Your task to perform on an android device: check data usage Image 0: 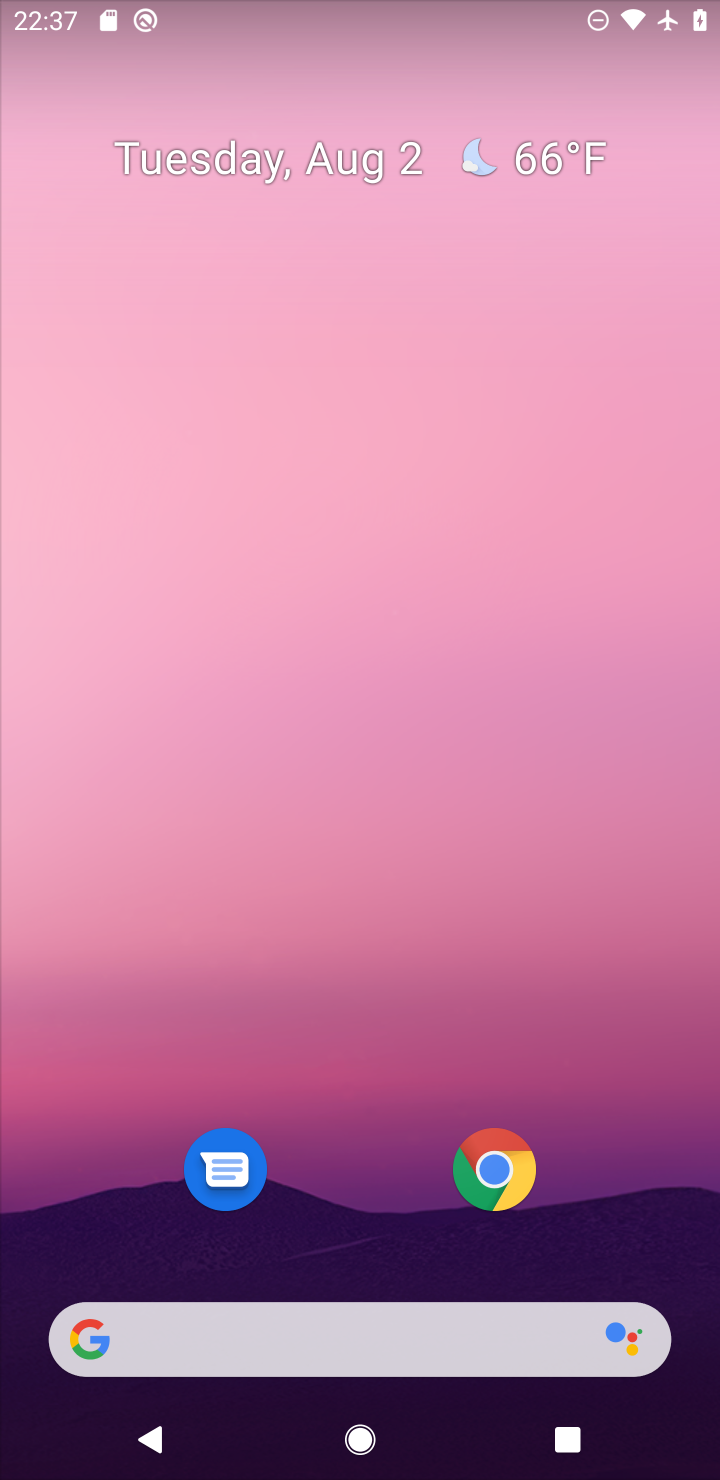
Step 0: drag from (378, 1191) to (317, 158)
Your task to perform on an android device: check data usage Image 1: 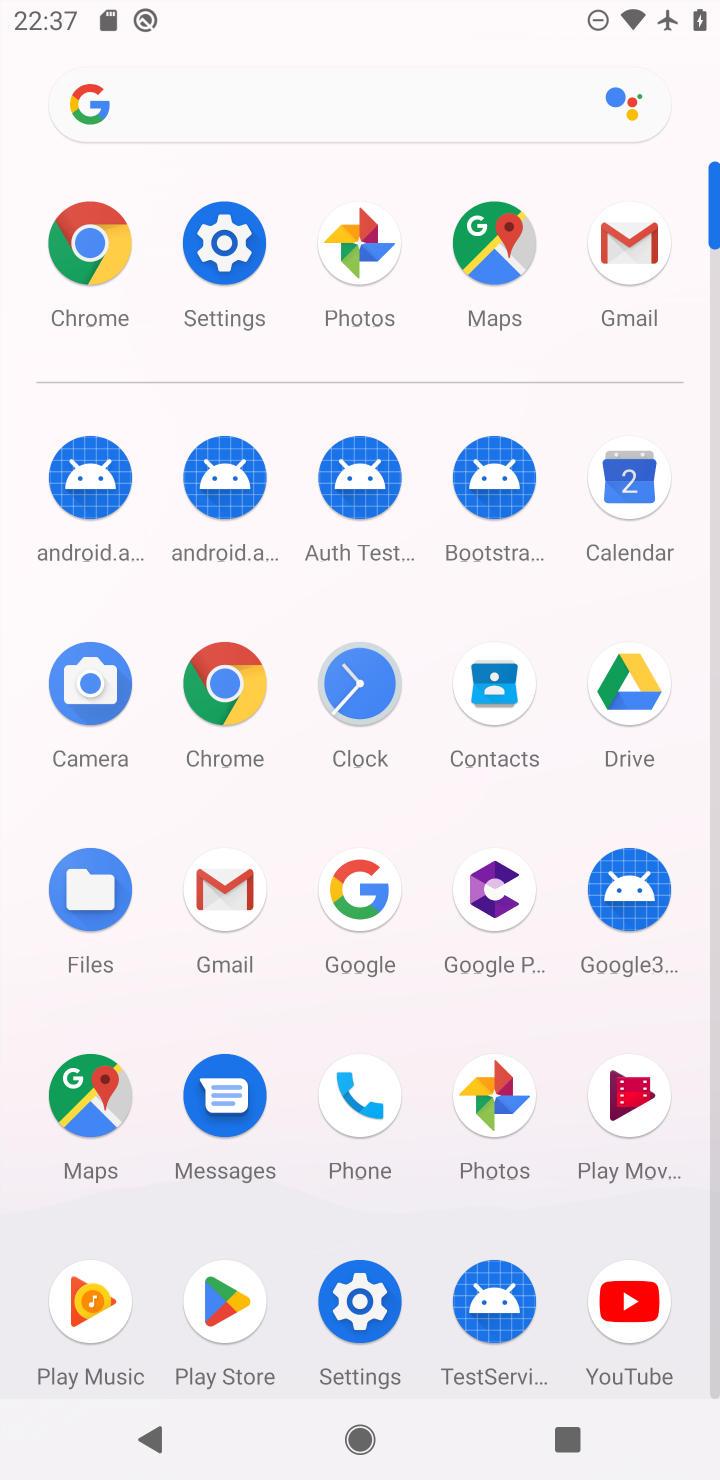
Step 1: click (218, 238)
Your task to perform on an android device: check data usage Image 2: 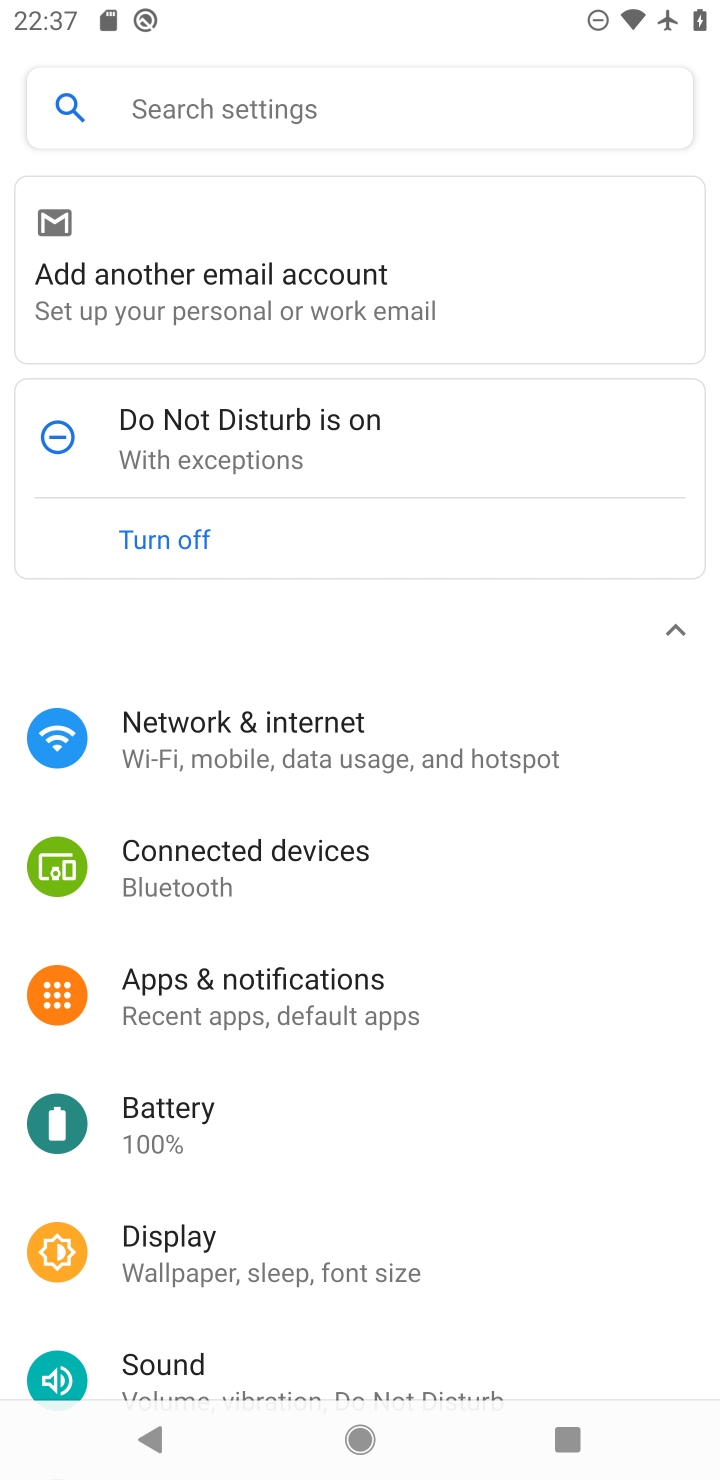
Step 2: click (223, 744)
Your task to perform on an android device: check data usage Image 3: 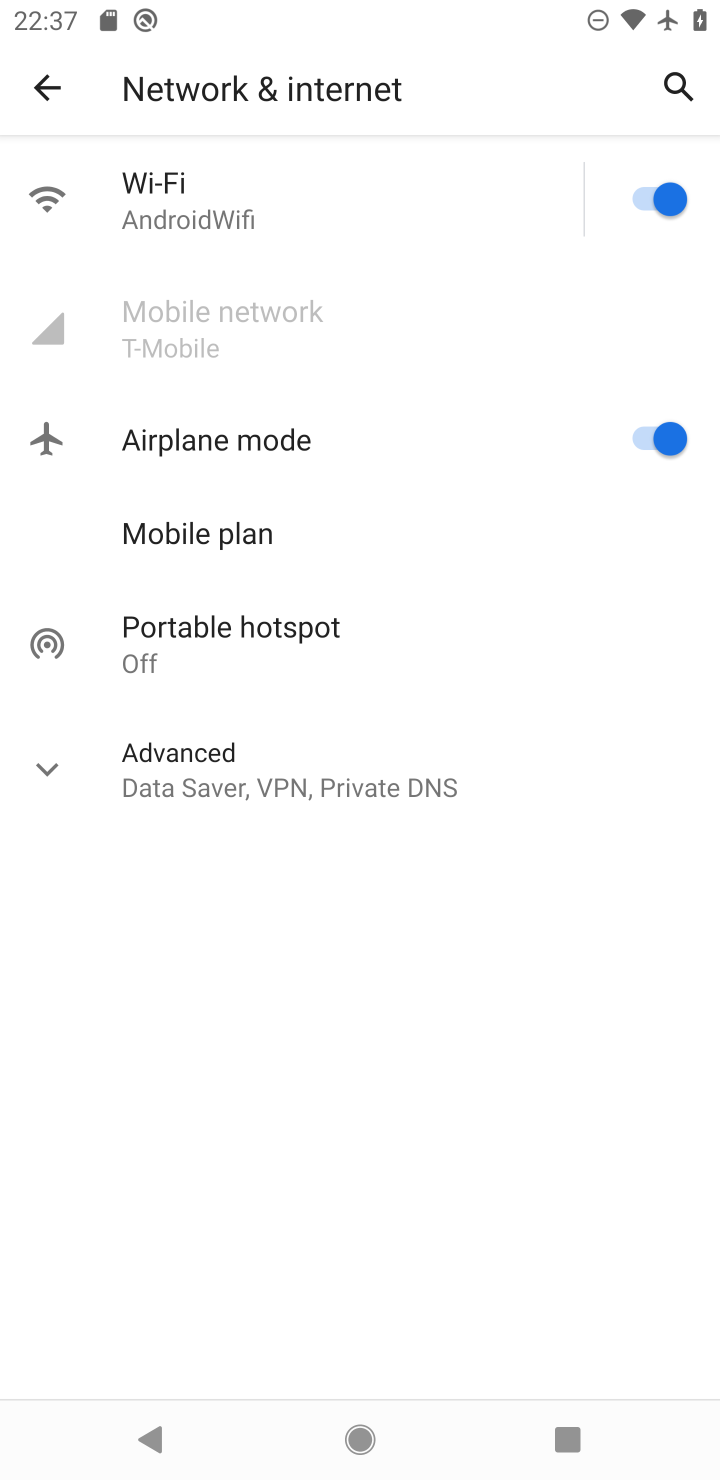
Step 3: click (649, 423)
Your task to perform on an android device: check data usage Image 4: 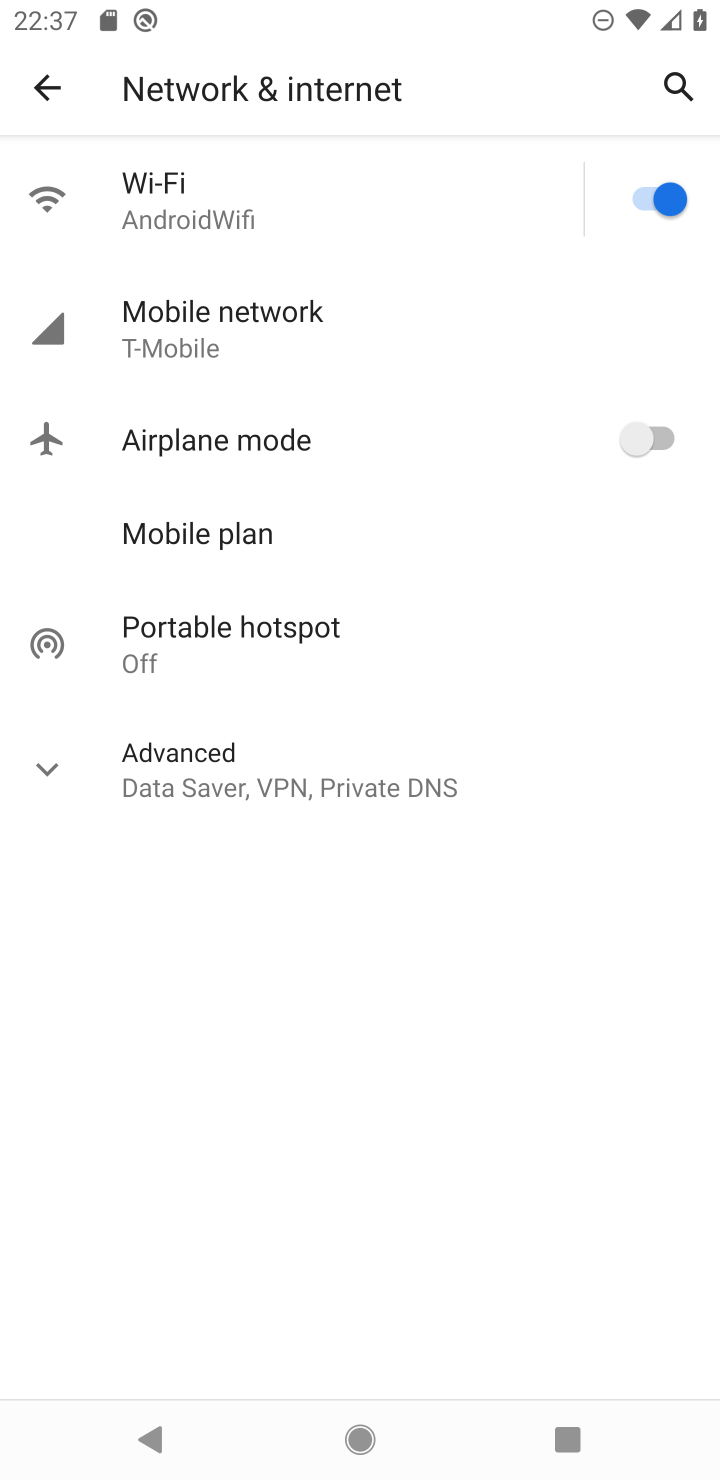
Step 4: click (192, 315)
Your task to perform on an android device: check data usage Image 5: 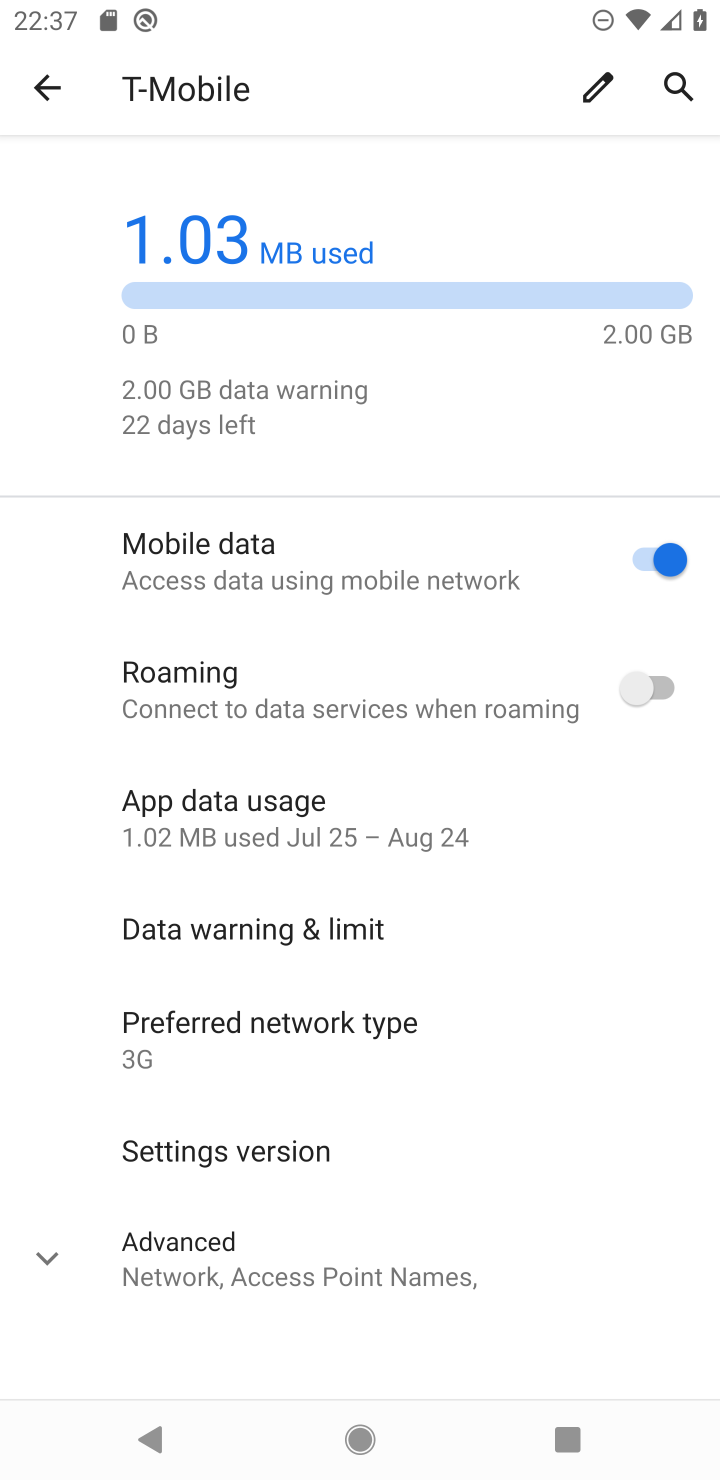
Step 5: click (253, 813)
Your task to perform on an android device: check data usage Image 6: 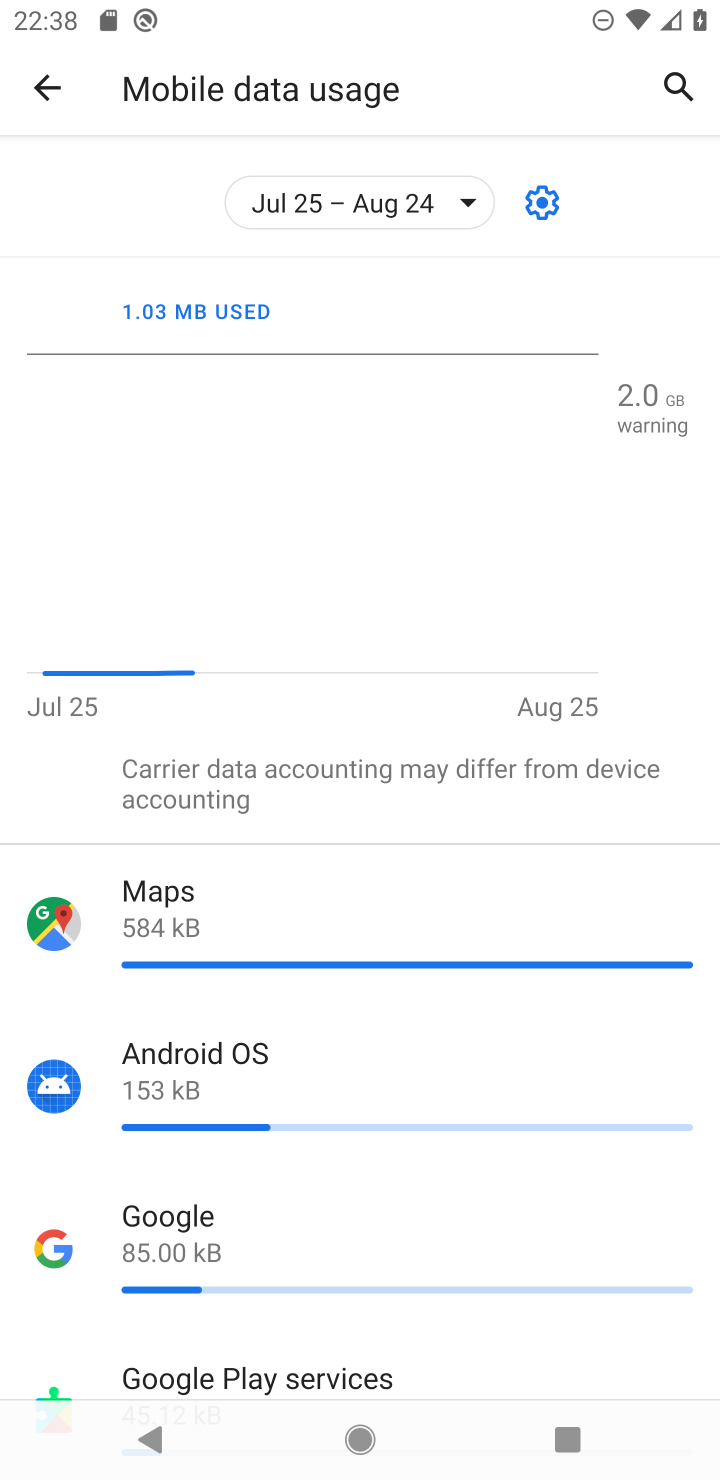
Step 6: task complete